Your task to perform on an android device: Open the calendar app, open the side menu, and click the "Day" option Image 0: 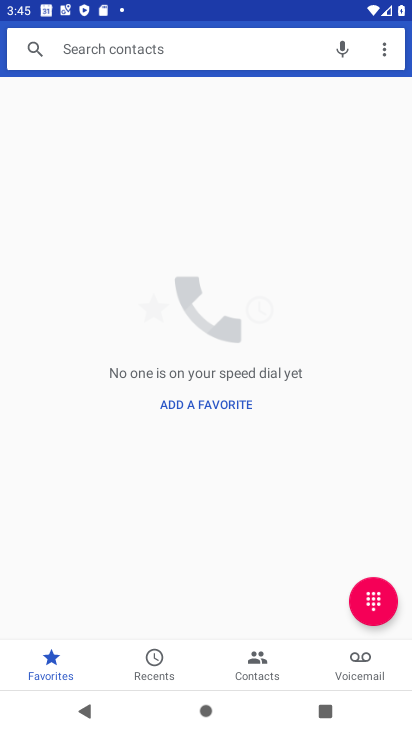
Step 0: press home button
Your task to perform on an android device: Open the calendar app, open the side menu, and click the "Day" option Image 1: 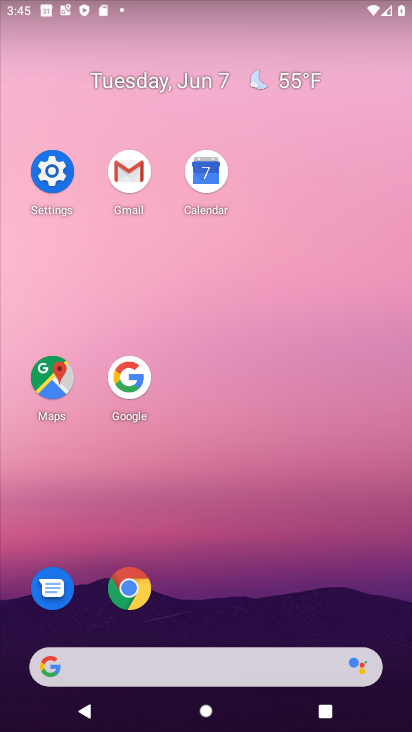
Step 1: click (204, 165)
Your task to perform on an android device: Open the calendar app, open the side menu, and click the "Day" option Image 2: 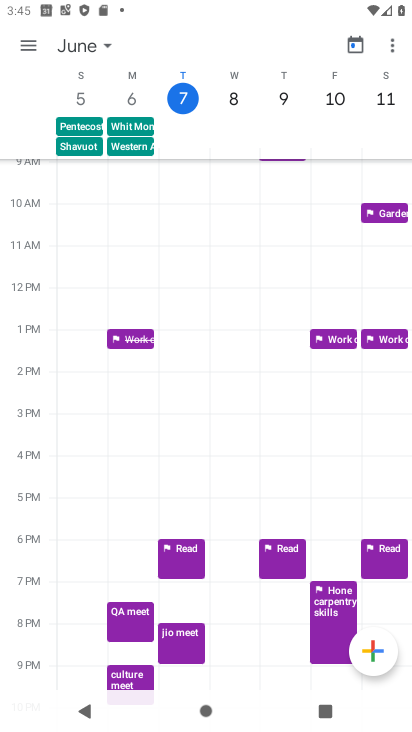
Step 2: click (31, 45)
Your task to perform on an android device: Open the calendar app, open the side menu, and click the "Day" option Image 3: 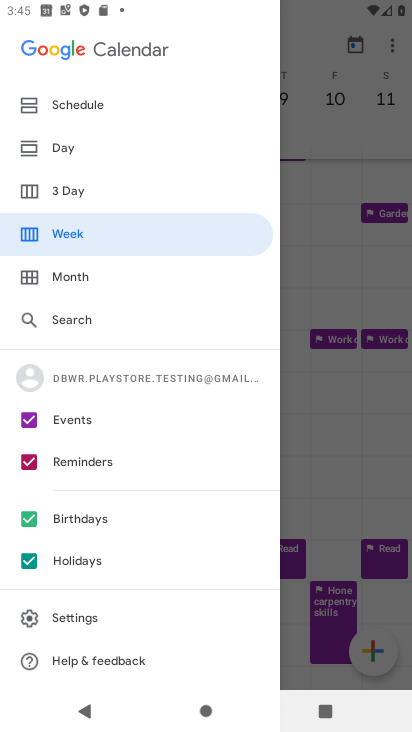
Step 3: click (102, 146)
Your task to perform on an android device: Open the calendar app, open the side menu, and click the "Day" option Image 4: 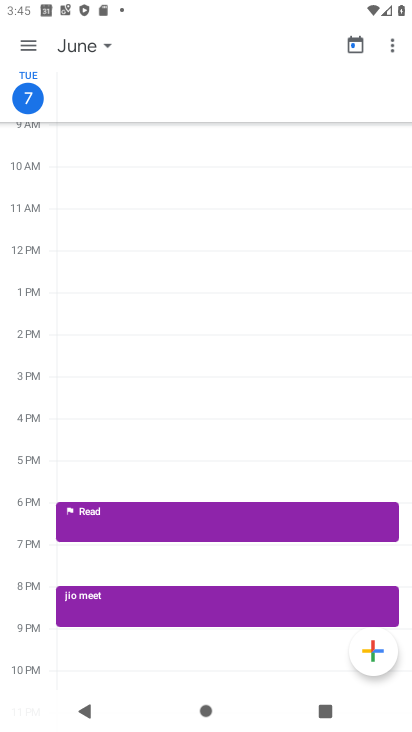
Step 4: task complete